Your task to perform on an android device: Open the web browser Image 0: 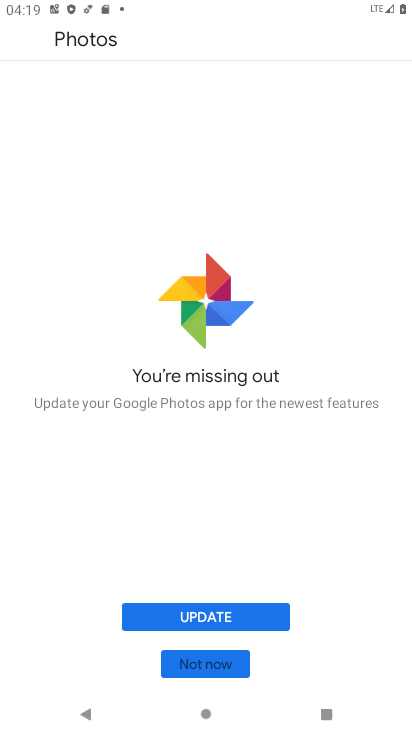
Step 0: press home button
Your task to perform on an android device: Open the web browser Image 1: 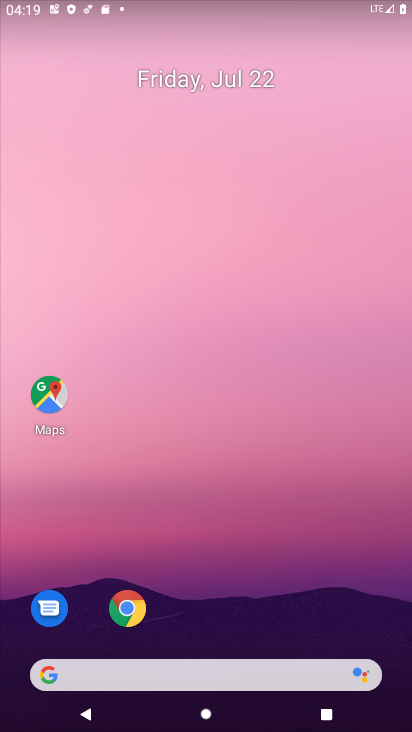
Step 1: drag from (215, 721) to (224, 222)
Your task to perform on an android device: Open the web browser Image 2: 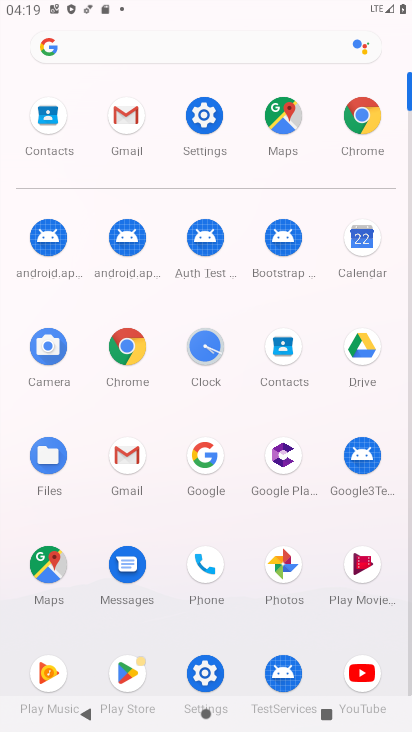
Step 2: click (132, 359)
Your task to perform on an android device: Open the web browser Image 3: 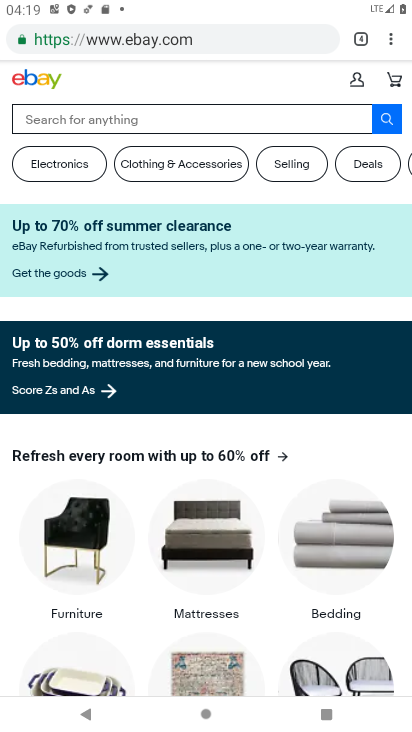
Step 3: task complete